Your task to perform on an android device: turn off location history Image 0: 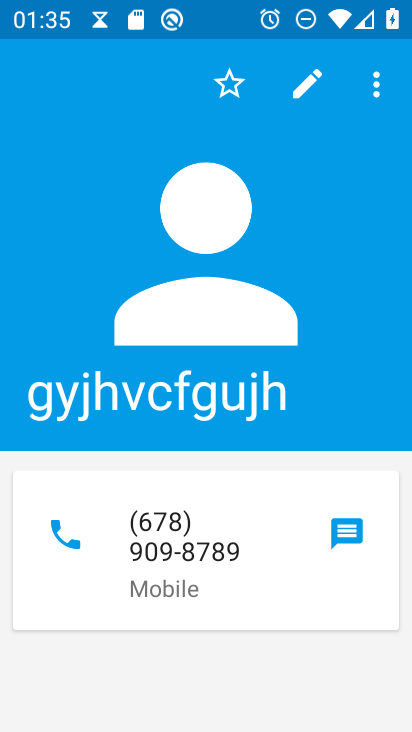
Step 0: press home button
Your task to perform on an android device: turn off location history Image 1: 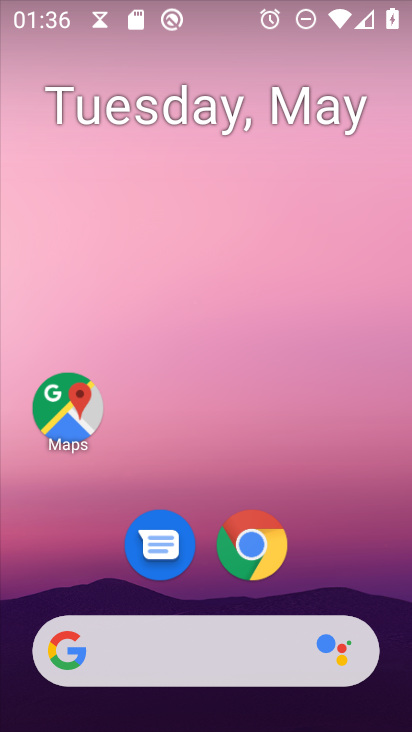
Step 1: drag from (311, 584) to (335, 36)
Your task to perform on an android device: turn off location history Image 2: 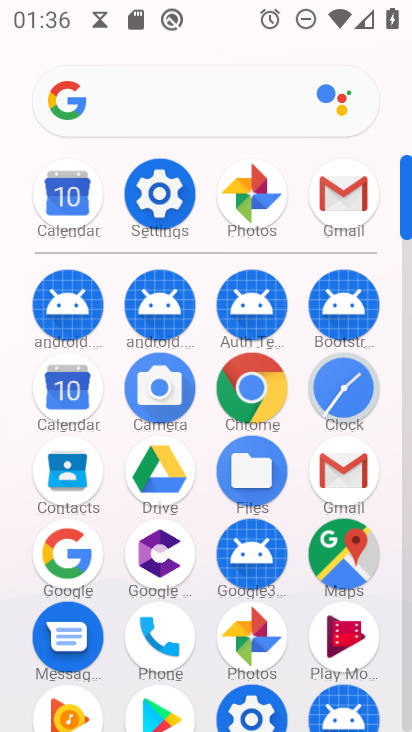
Step 2: click (148, 202)
Your task to perform on an android device: turn off location history Image 3: 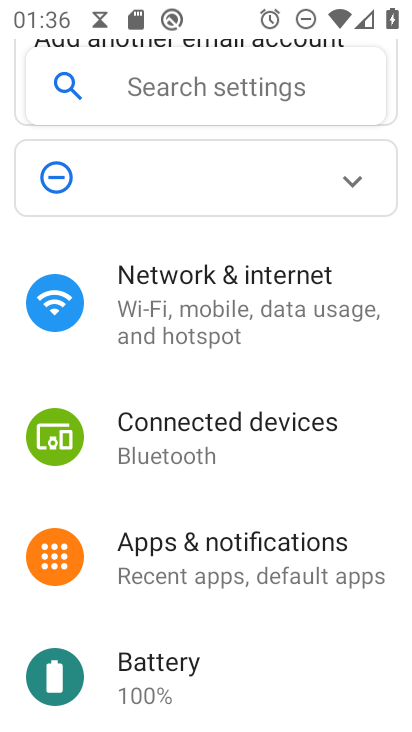
Step 3: drag from (190, 536) to (232, 336)
Your task to perform on an android device: turn off location history Image 4: 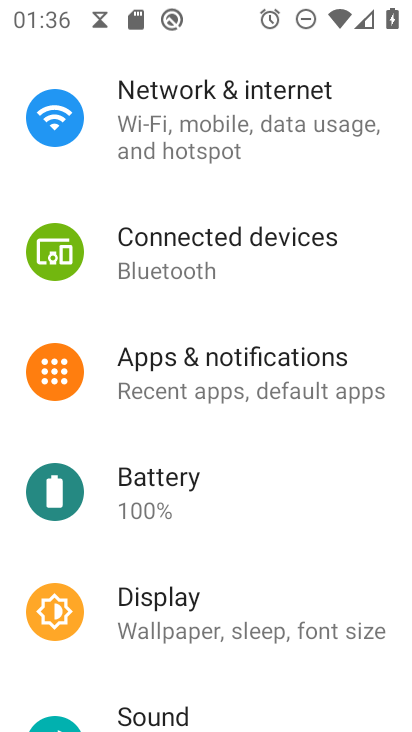
Step 4: drag from (202, 550) to (219, 371)
Your task to perform on an android device: turn off location history Image 5: 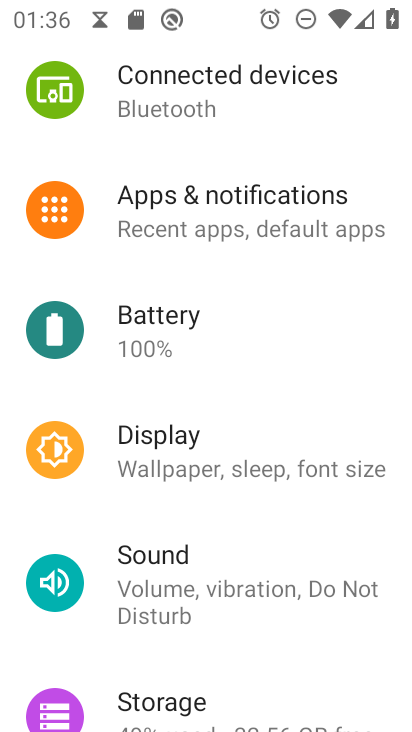
Step 5: drag from (208, 629) to (200, 377)
Your task to perform on an android device: turn off location history Image 6: 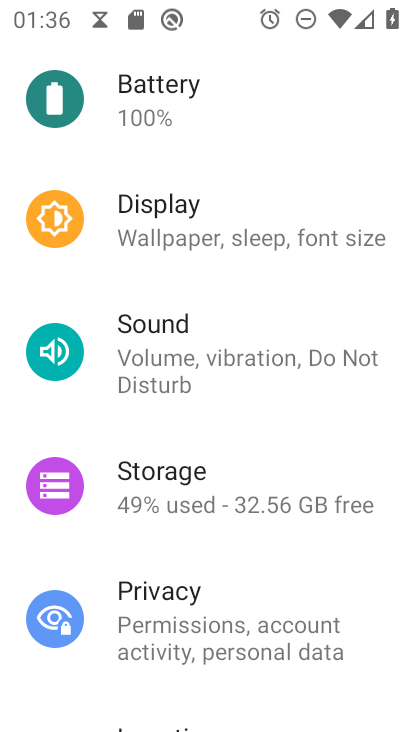
Step 6: drag from (207, 559) to (209, 437)
Your task to perform on an android device: turn off location history Image 7: 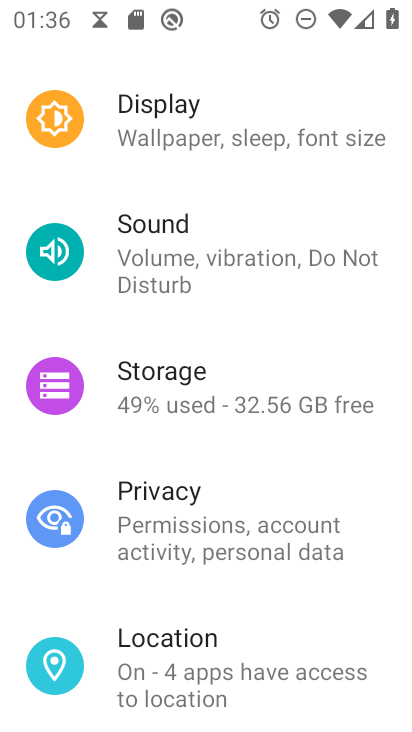
Step 7: click (154, 660)
Your task to perform on an android device: turn off location history Image 8: 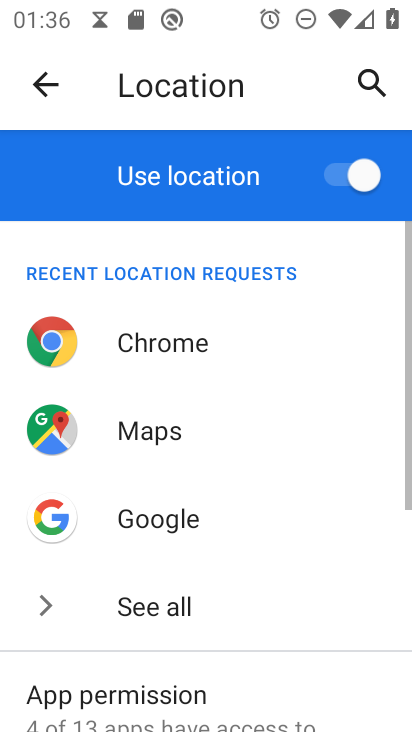
Step 8: drag from (152, 659) to (180, 511)
Your task to perform on an android device: turn off location history Image 9: 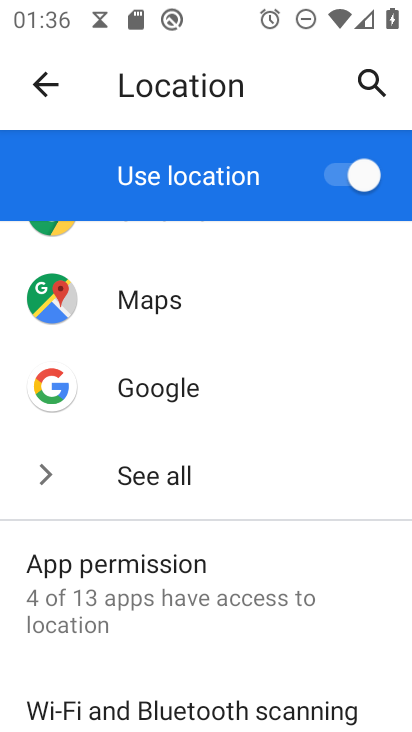
Step 9: drag from (168, 681) to (188, 556)
Your task to perform on an android device: turn off location history Image 10: 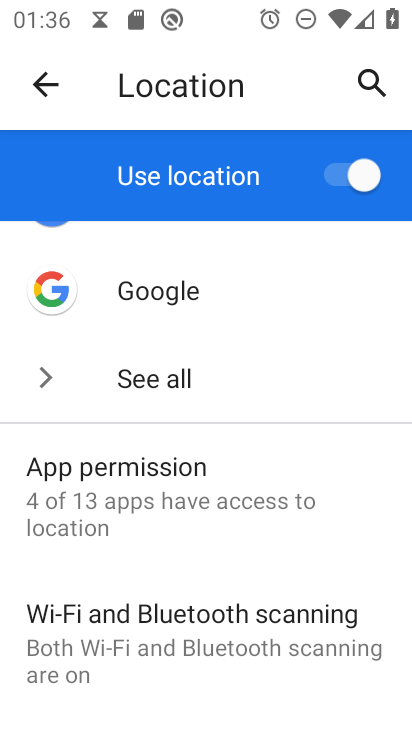
Step 10: drag from (194, 681) to (206, 542)
Your task to perform on an android device: turn off location history Image 11: 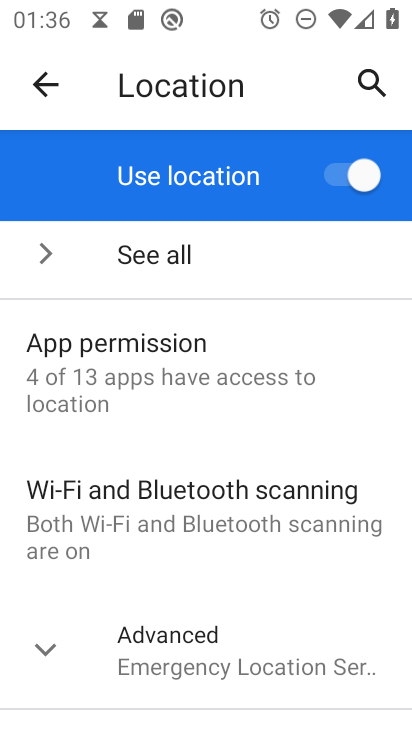
Step 11: click (189, 645)
Your task to perform on an android device: turn off location history Image 12: 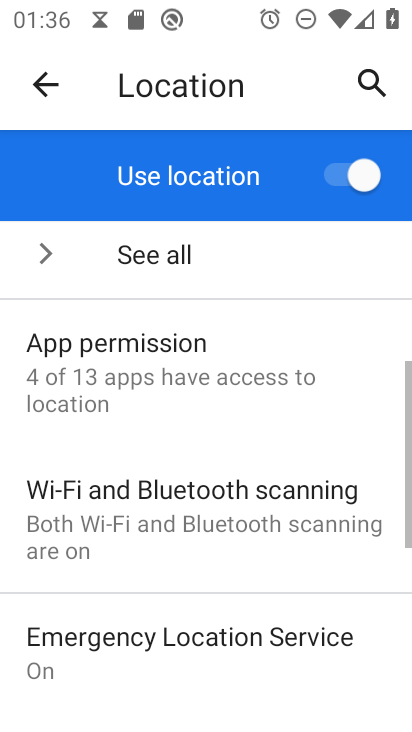
Step 12: drag from (189, 646) to (196, 492)
Your task to perform on an android device: turn off location history Image 13: 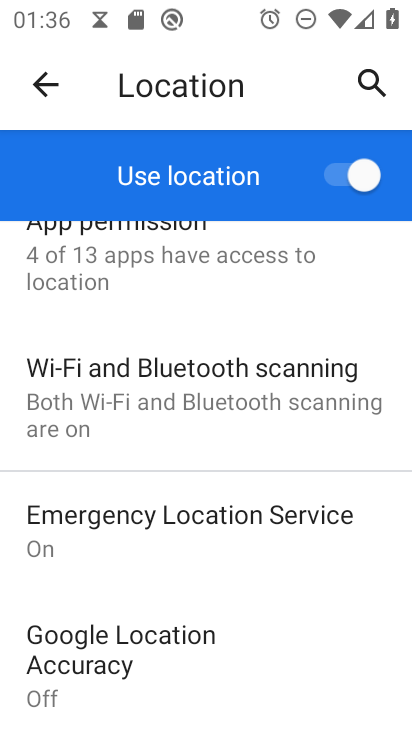
Step 13: drag from (150, 636) to (185, 498)
Your task to perform on an android device: turn off location history Image 14: 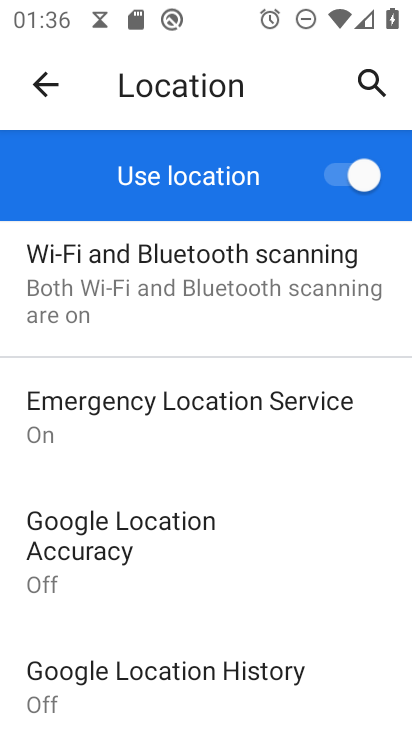
Step 14: click (190, 694)
Your task to perform on an android device: turn off location history Image 15: 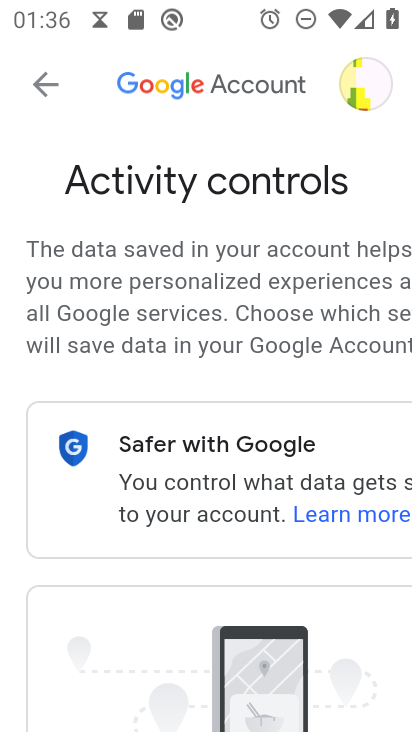
Step 15: task complete